Your task to perform on an android device: Is it going to rain today? Image 0: 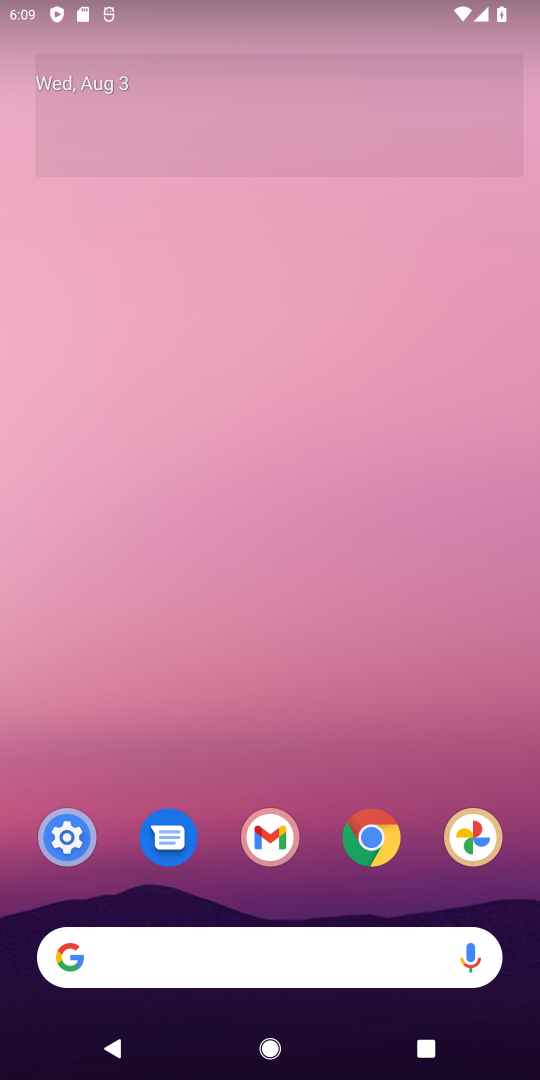
Step 0: press home button
Your task to perform on an android device: Is it going to rain today? Image 1: 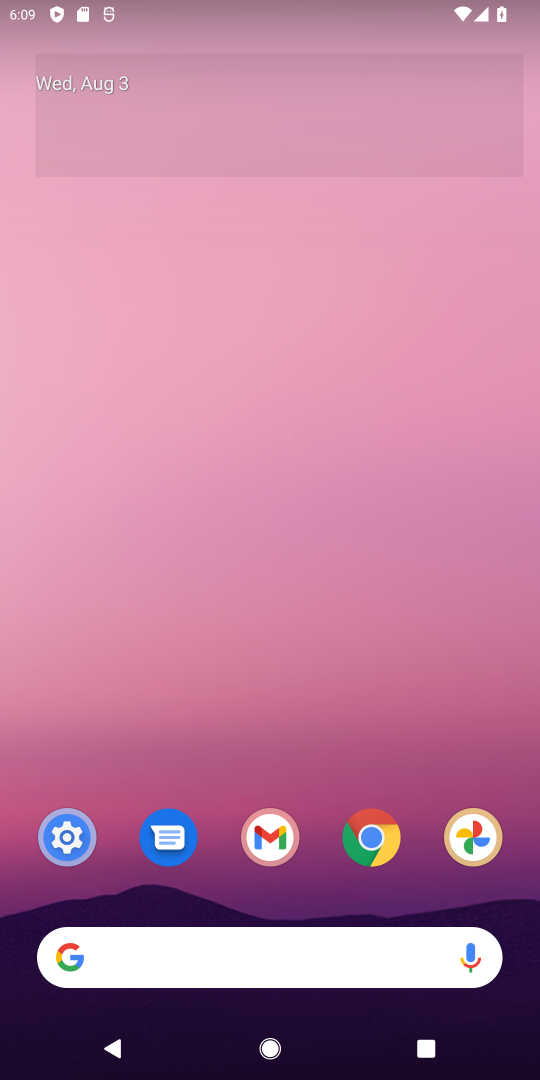
Step 1: click (80, 967)
Your task to perform on an android device: Is it going to rain today? Image 2: 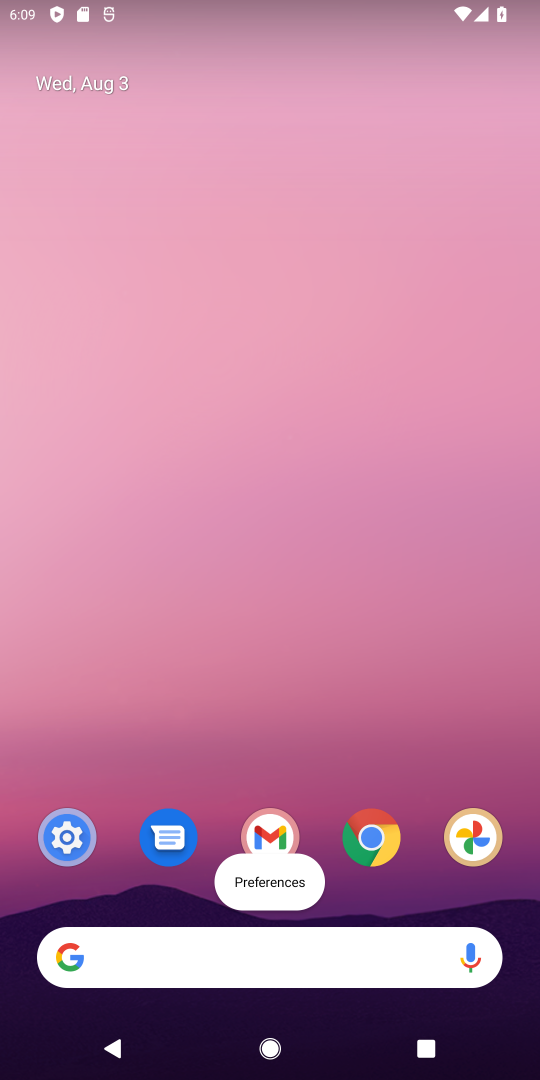
Step 2: click (77, 960)
Your task to perform on an android device: Is it going to rain today? Image 3: 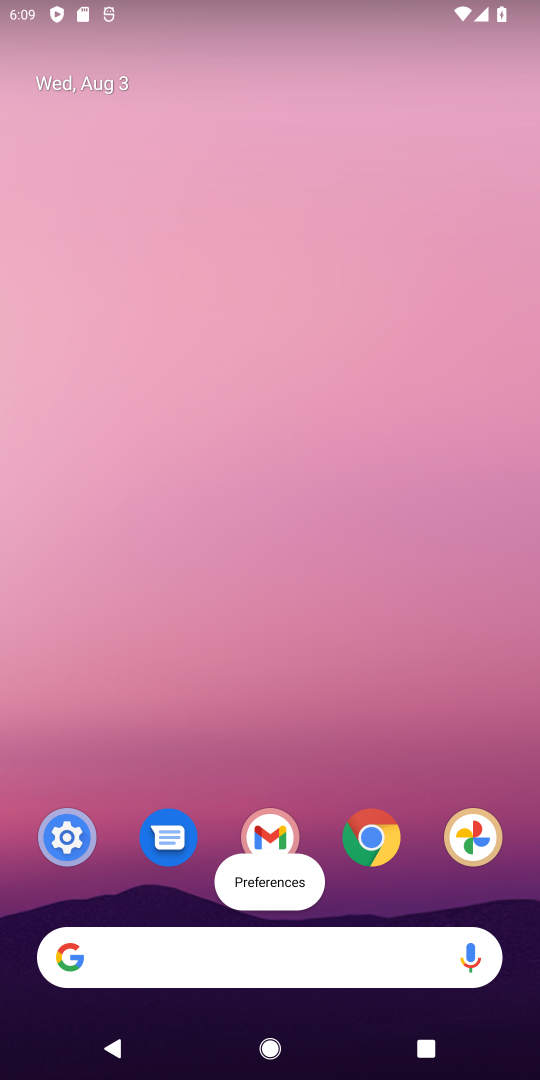
Step 3: click (63, 967)
Your task to perform on an android device: Is it going to rain today? Image 4: 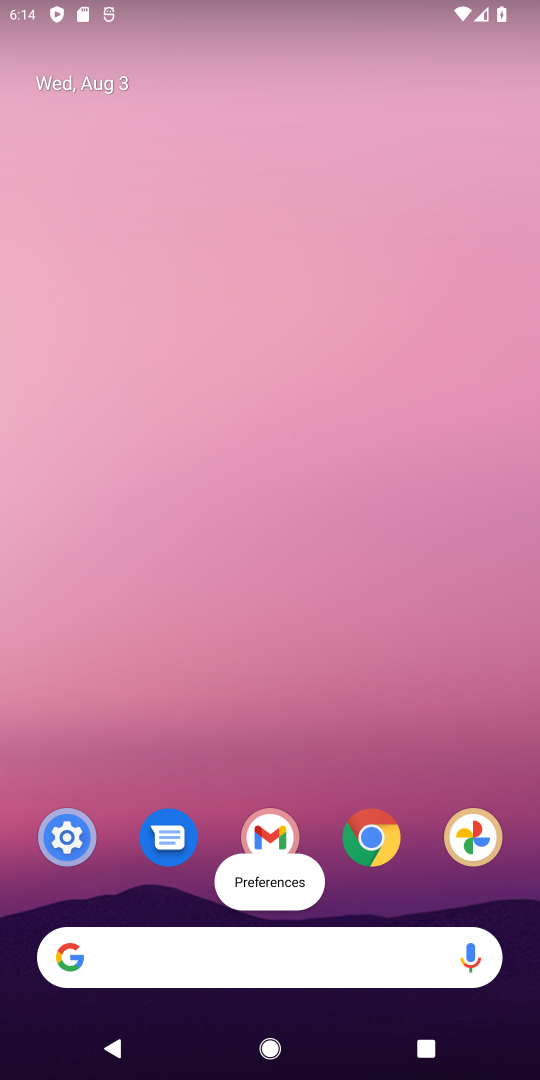
Step 4: press home button
Your task to perform on an android device: Is it going to rain today? Image 5: 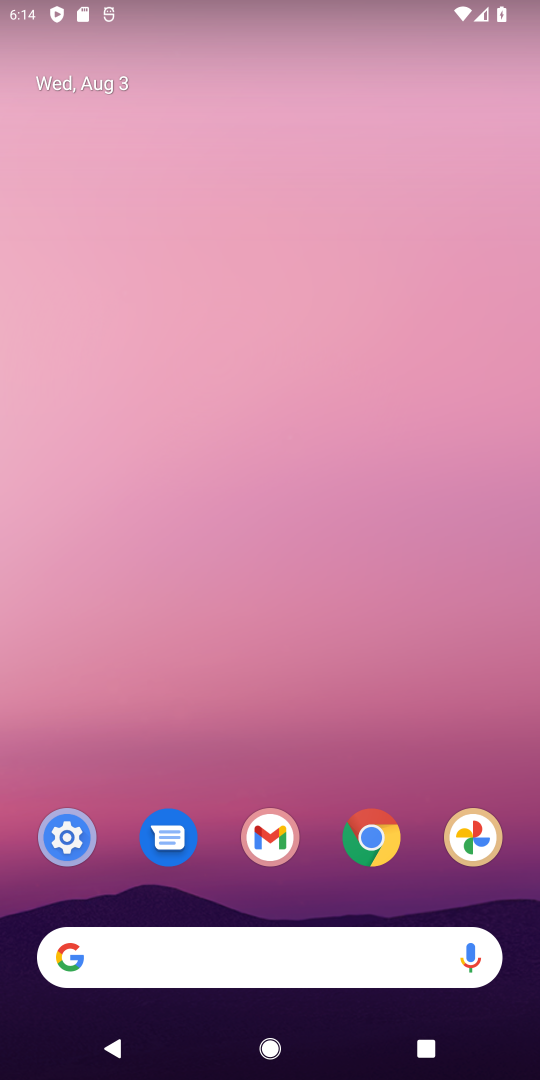
Step 5: click (57, 951)
Your task to perform on an android device: Is it going to rain today? Image 6: 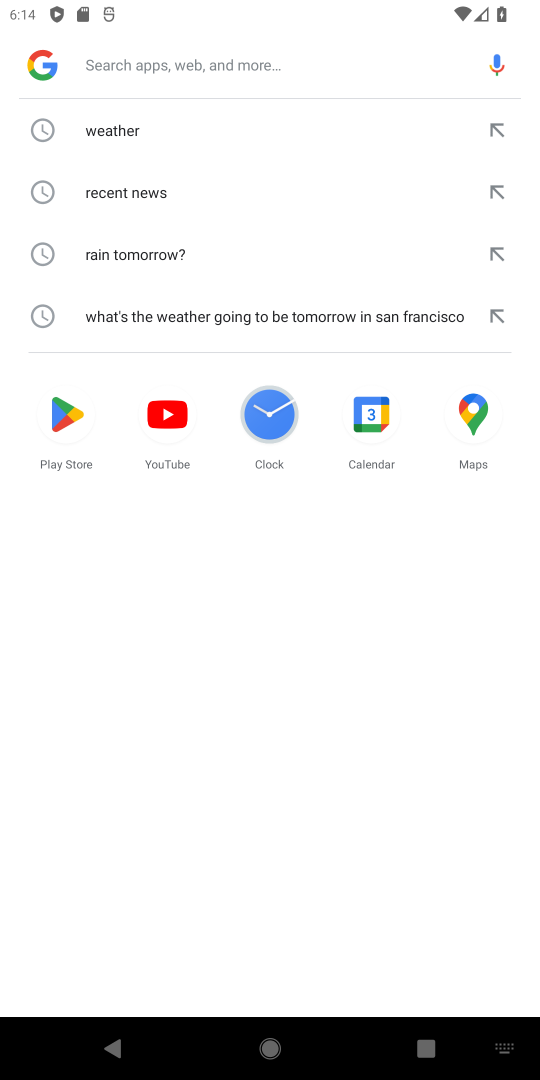
Step 6: type "Is it going to rain today?"
Your task to perform on an android device: Is it going to rain today? Image 7: 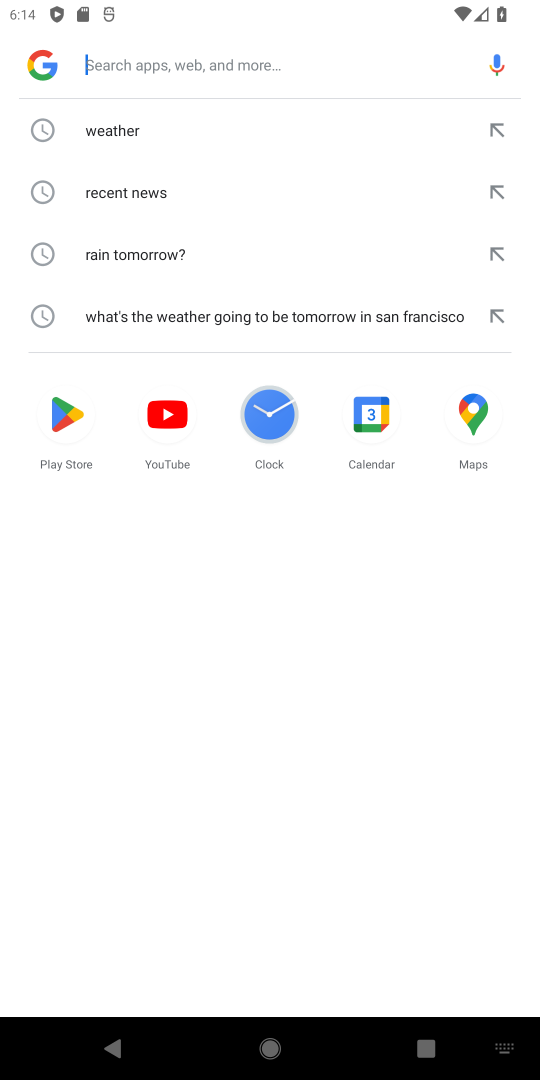
Step 7: click (166, 50)
Your task to perform on an android device: Is it going to rain today? Image 8: 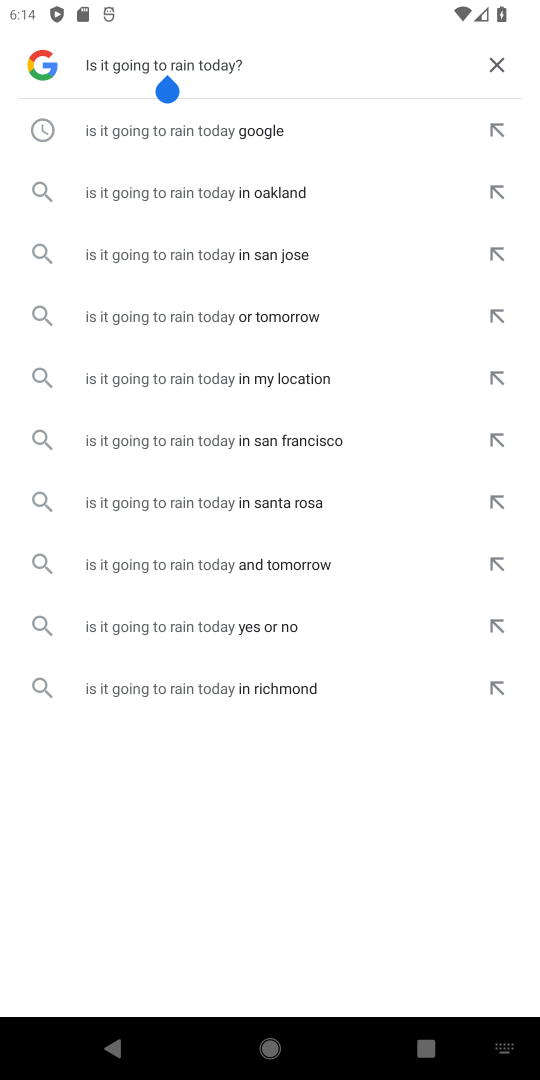
Step 8: press enter
Your task to perform on an android device: Is it going to rain today? Image 9: 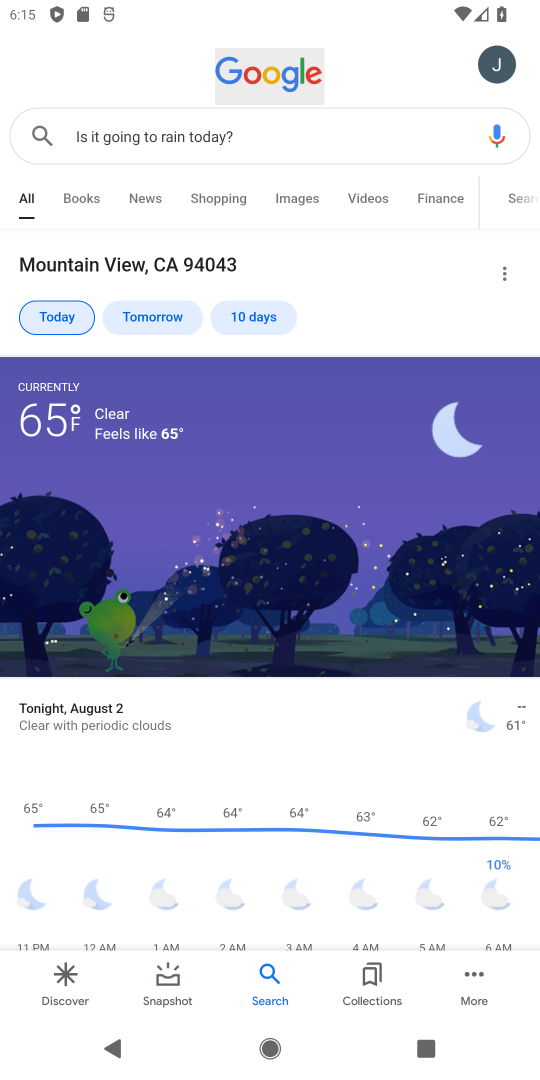
Step 9: task complete